Your task to perform on an android device: open app "Microsoft Excel" (install if not already installed) Image 0: 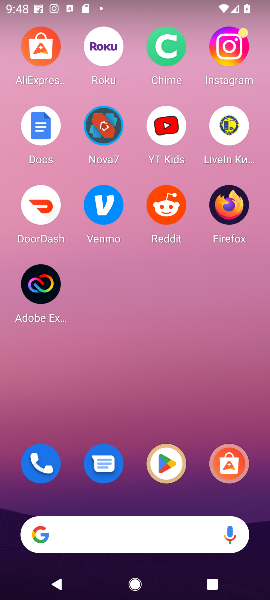
Step 0: click (164, 467)
Your task to perform on an android device: open app "Microsoft Excel" (install if not already installed) Image 1: 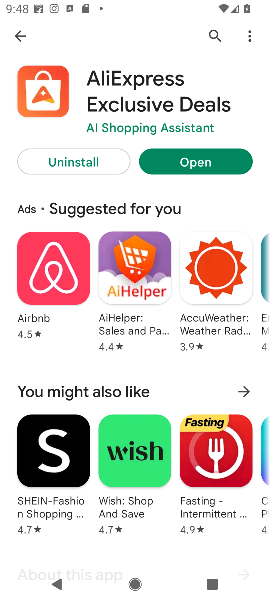
Step 1: click (19, 38)
Your task to perform on an android device: open app "Microsoft Excel" (install if not already installed) Image 2: 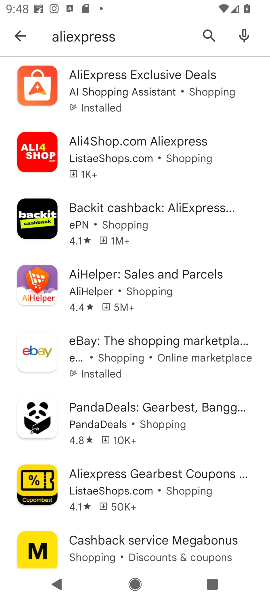
Step 2: click (23, 38)
Your task to perform on an android device: open app "Microsoft Excel" (install if not already installed) Image 3: 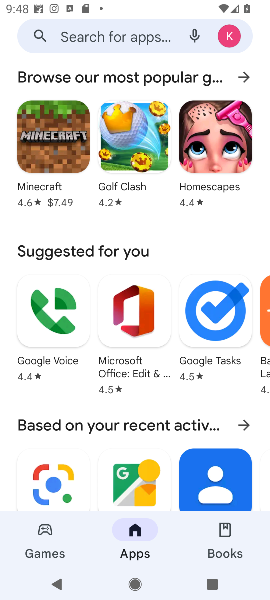
Step 3: click (126, 39)
Your task to perform on an android device: open app "Microsoft Excel" (install if not already installed) Image 4: 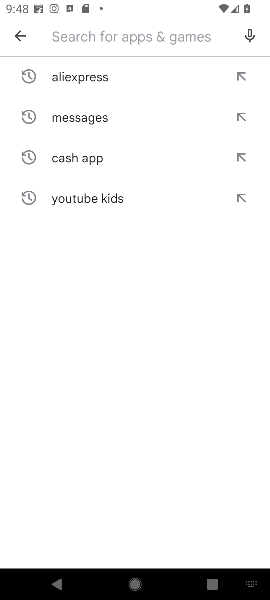
Step 4: type "Microsoft Excel"
Your task to perform on an android device: open app "Microsoft Excel" (install if not already installed) Image 5: 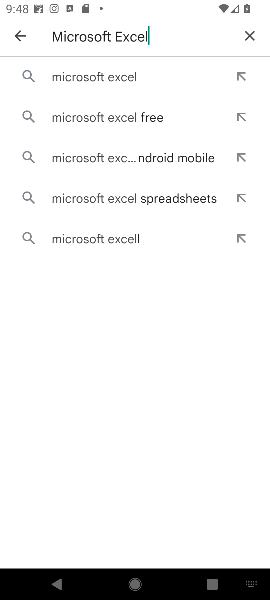
Step 5: click (77, 75)
Your task to perform on an android device: open app "Microsoft Excel" (install if not already installed) Image 6: 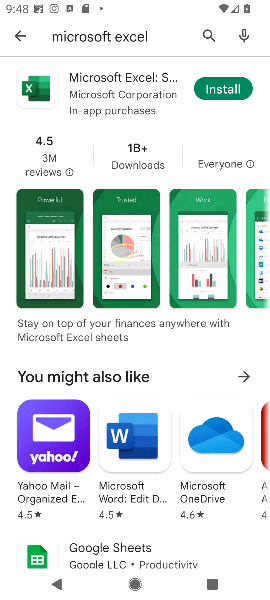
Step 6: click (217, 86)
Your task to perform on an android device: open app "Microsoft Excel" (install if not already installed) Image 7: 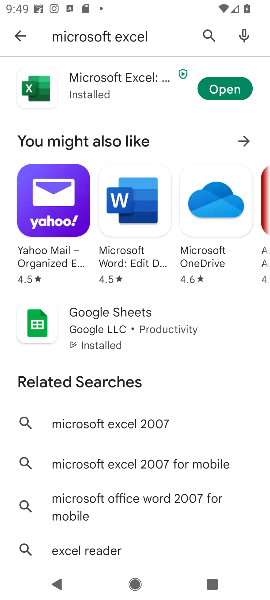
Step 7: click (217, 86)
Your task to perform on an android device: open app "Microsoft Excel" (install if not already installed) Image 8: 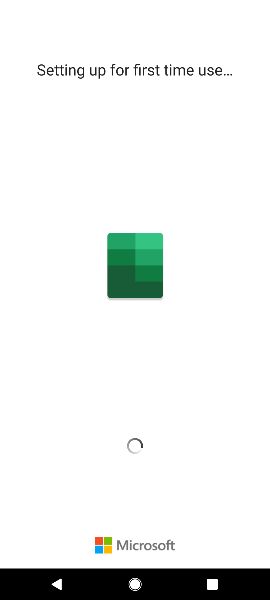
Step 8: task complete